Your task to perform on an android device: add a label to a message in the gmail app Image 0: 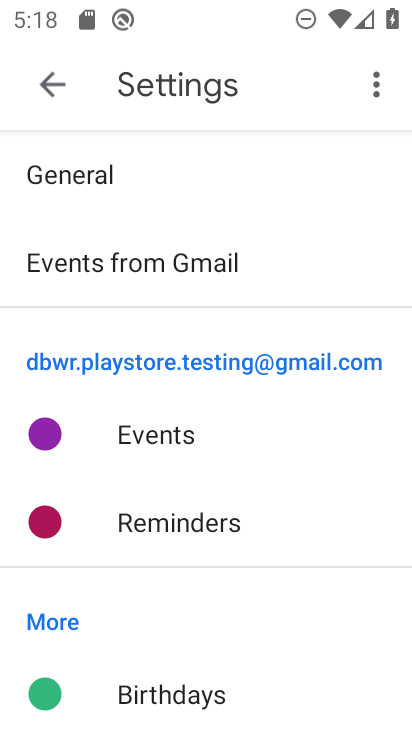
Step 0: press home button
Your task to perform on an android device: add a label to a message in the gmail app Image 1: 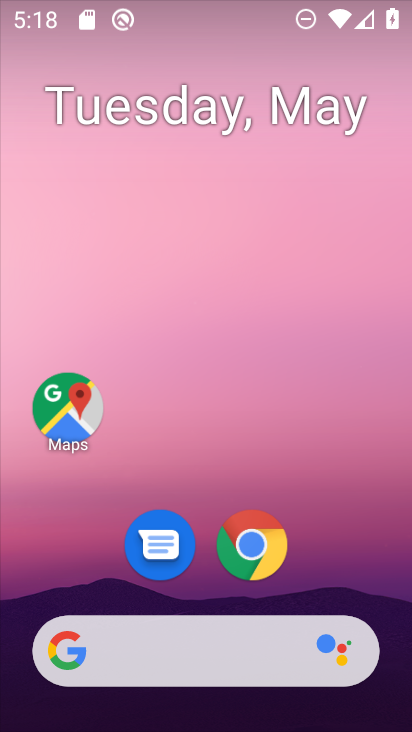
Step 1: drag from (359, 477) to (288, 13)
Your task to perform on an android device: add a label to a message in the gmail app Image 2: 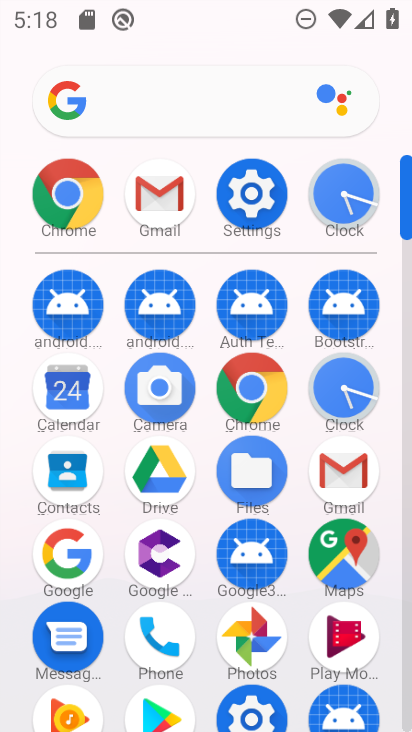
Step 2: drag from (16, 548) to (39, 180)
Your task to perform on an android device: add a label to a message in the gmail app Image 3: 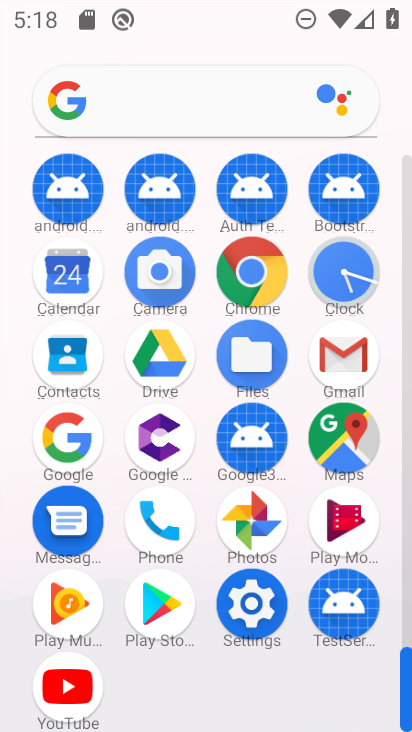
Step 3: click (347, 348)
Your task to perform on an android device: add a label to a message in the gmail app Image 4: 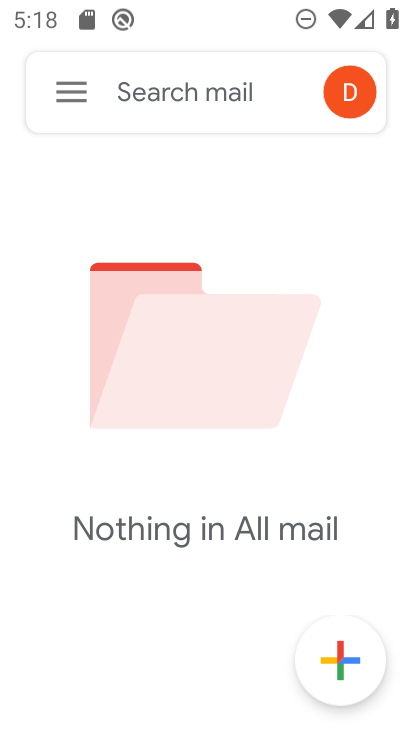
Step 4: click (68, 79)
Your task to perform on an android device: add a label to a message in the gmail app Image 5: 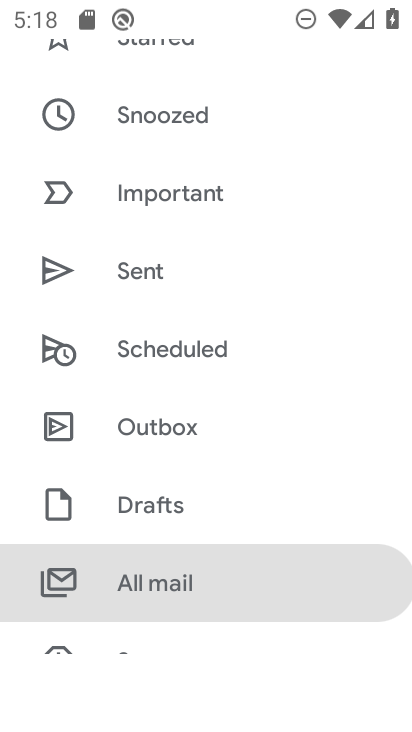
Step 5: drag from (284, 191) to (298, 589)
Your task to perform on an android device: add a label to a message in the gmail app Image 6: 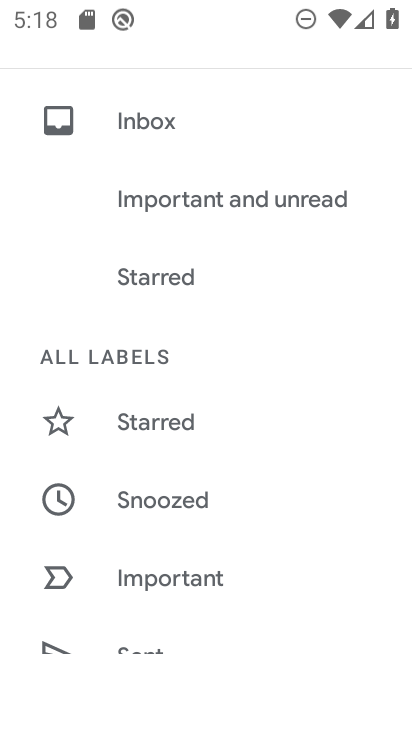
Step 6: drag from (311, 251) to (300, 582)
Your task to perform on an android device: add a label to a message in the gmail app Image 7: 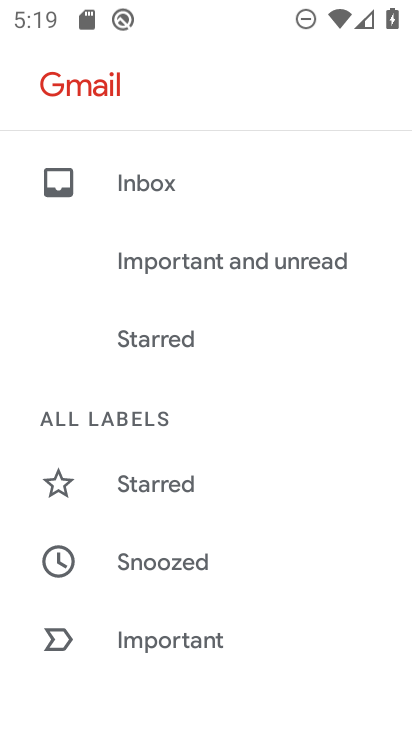
Step 7: drag from (212, 559) to (235, 227)
Your task to perform on an android device: add a label to a message in the gmail app Image 8: 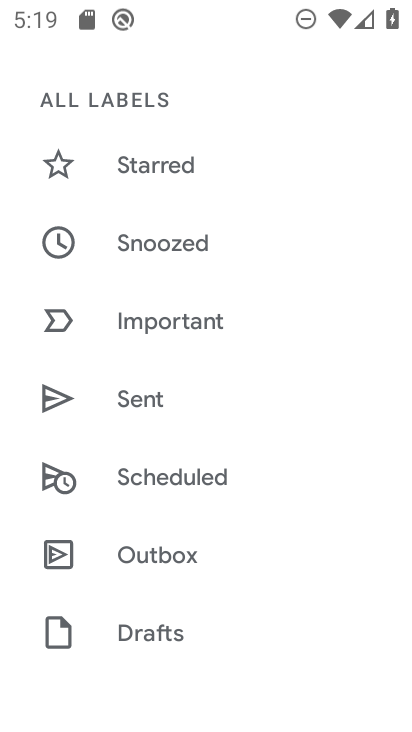
Step 8: drag from (249, 118) to (244, 558)
Your task to perform on an android device: add a label to a message in the gmail app Image 9: 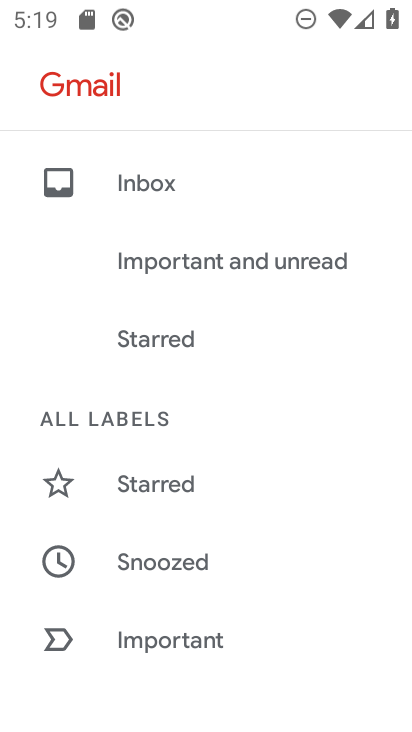
Step 9: click (172, 183)
Your task to perform on an android device: add a label to a message in the gmail app Image 10: 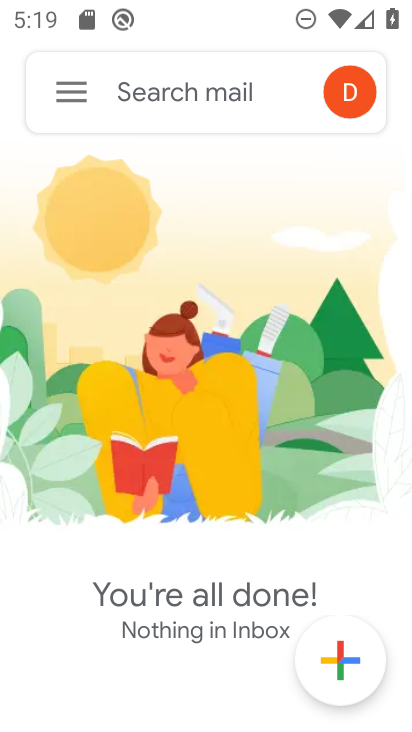
Step 10: drag from (274, 521) to (278, 148)
Your task to perform on an android device: add a label to a message in the gmail app Image 11: 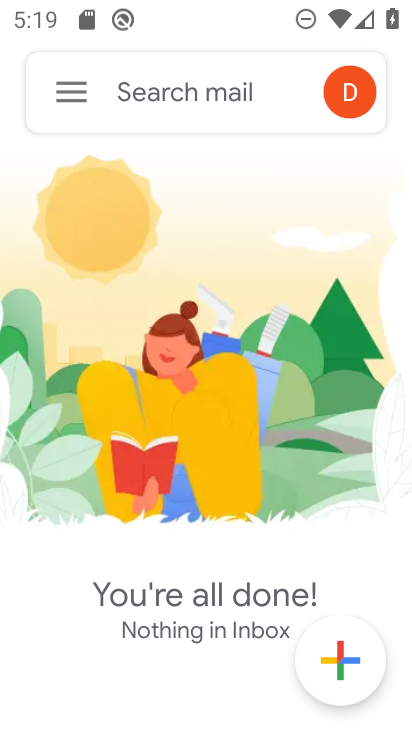
Step 11: click (62, 78)
Your task to perform on an android device: add a label to a message in the gmail app Image 12: 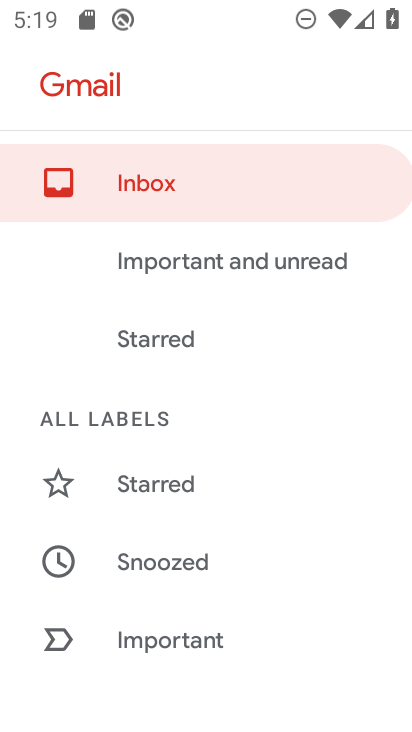
Step 12: drag from (256, 539) to (267, 82)
Your task to perform on an android device: add a label to a message in the gmail app Image 13: 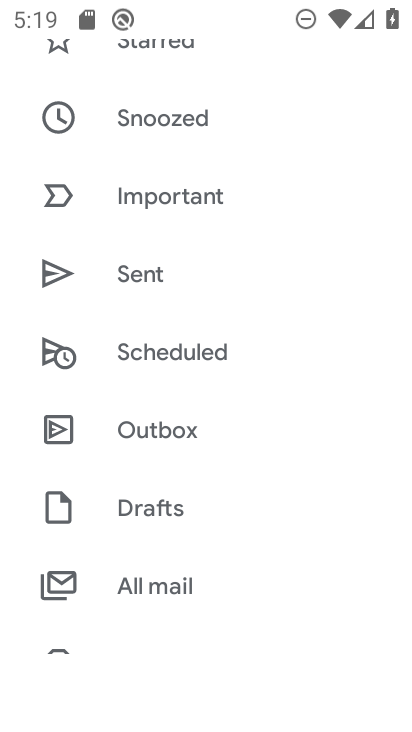
Step 13: drag from (244, 579) to (276, 285)
Your task to perform on an android device: add a label to a message in the gmail app Image 14: 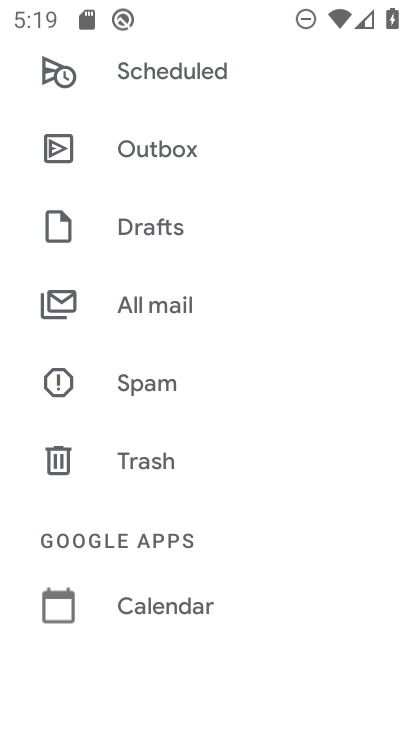
Step 14: click (189, 294)
Your task to perform on an android device: add a label to a message in the gmail app Image 15: 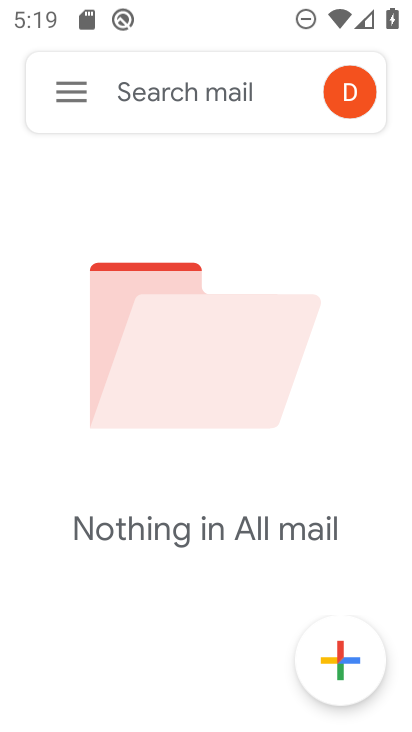
Step 15: drag from (315, 535) to (387, 406)
Your task to perform on an android device: add a label to a message in the gmail app Image 16: 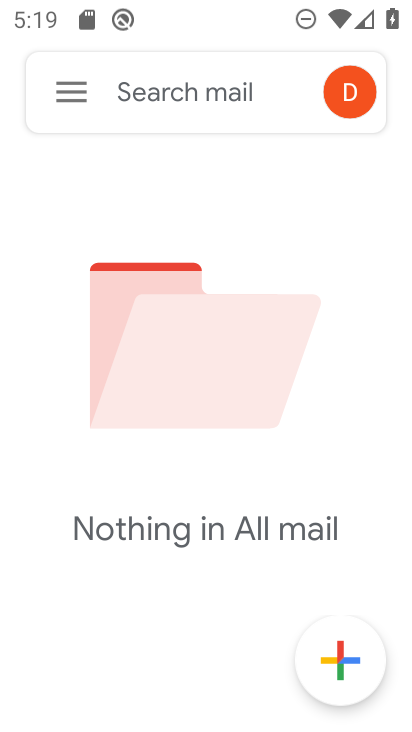
Step 16: click (77, 95)
Your task to perform on an android device: add a label to a message in the gmail app Image 17: 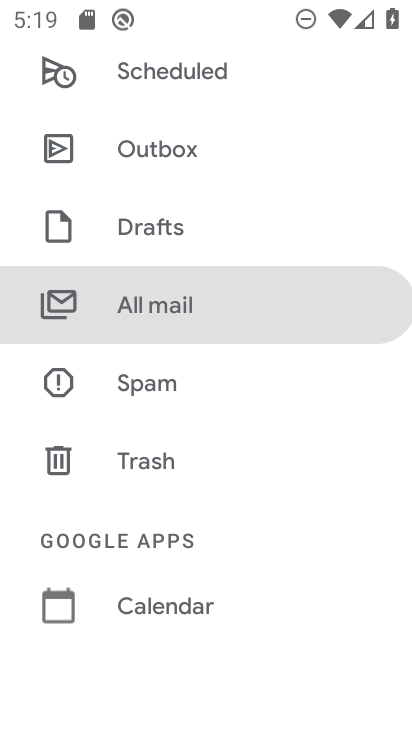
Step 17: click (196, 303)
Your task to perform on an android device: add a label to a message in the gmail app Image 18: 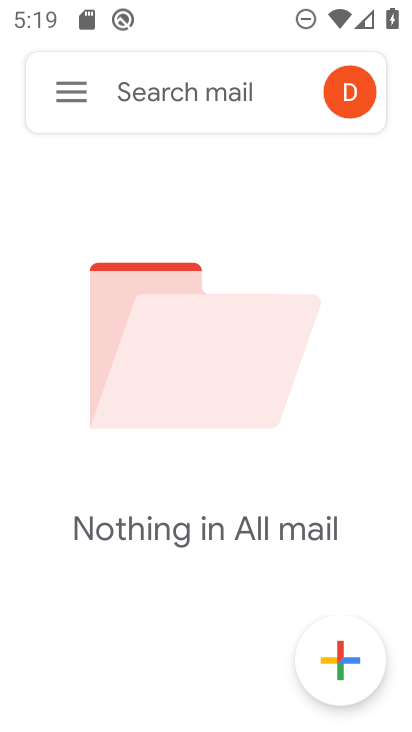
Step 18: task complete